Your task to perform on an android device: Search for seafood restaurants on Google Maps Image 0: 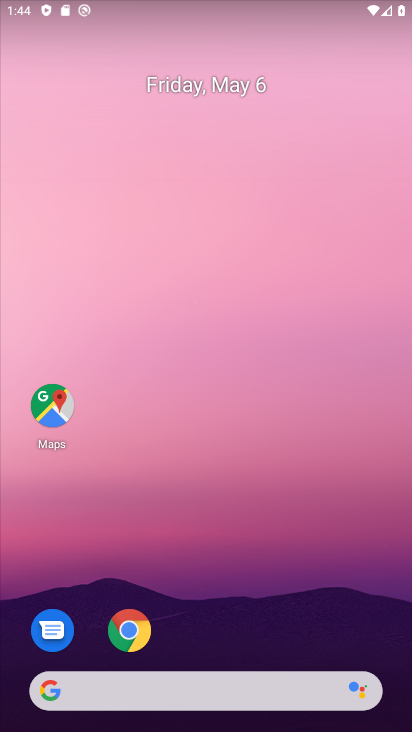
Step 0: click (56, 401)
Your task to perform on an android device: Search for seafood restaurants on Google Maps Image 1: 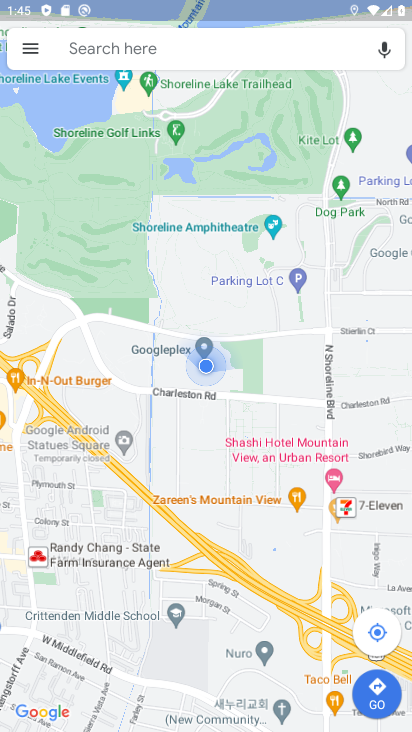
Step 1: click (194, 41)
Your task to perform on an android device: Search for seafood restaurants on Google Maps Image 2: 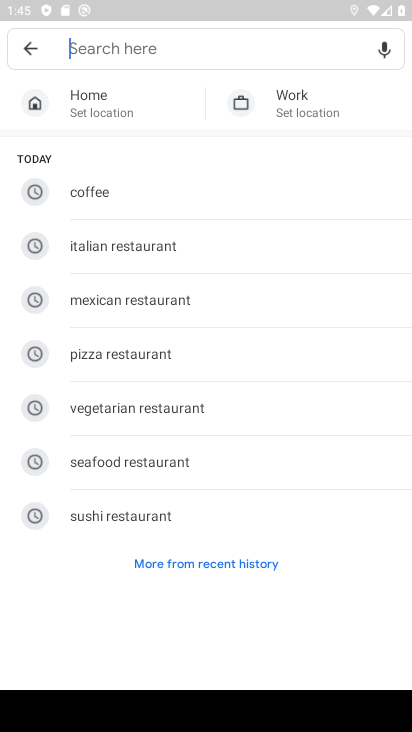
Step 2: click (163, 464)
Your task to perform on an android device: Search for seafood restaurants on Google Maps Image 3: 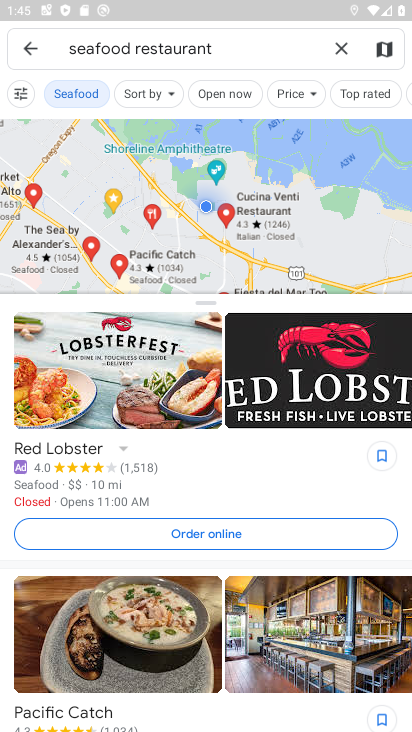
Step 3: task complete